Your task to perform on an android device: move a message to another label in the gmail app Image 0: 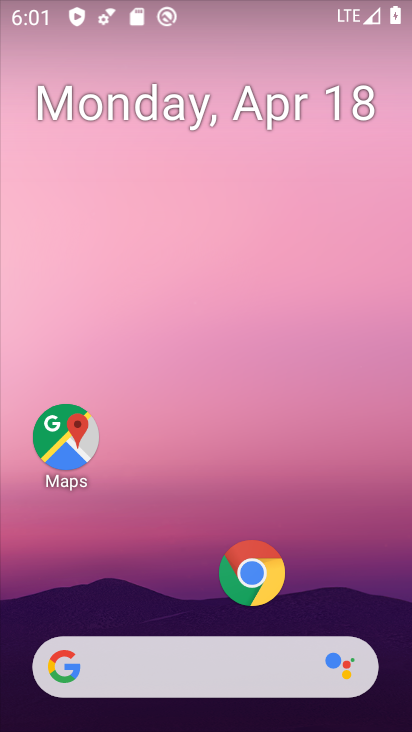
Step 0: drag from (198, 562) to (246, 28)
Your task to perform on an android device: move a message to another label in the gmail app Image 1: 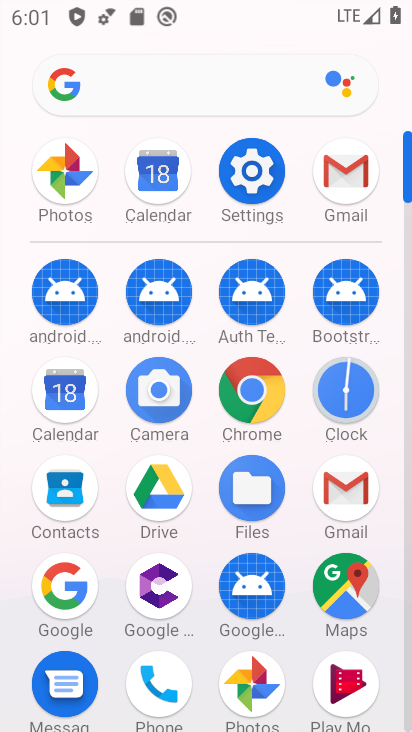
Step 1: click (358, 476)
Your task to perform on an android device: move a message to another label in the gmail app Image 2: 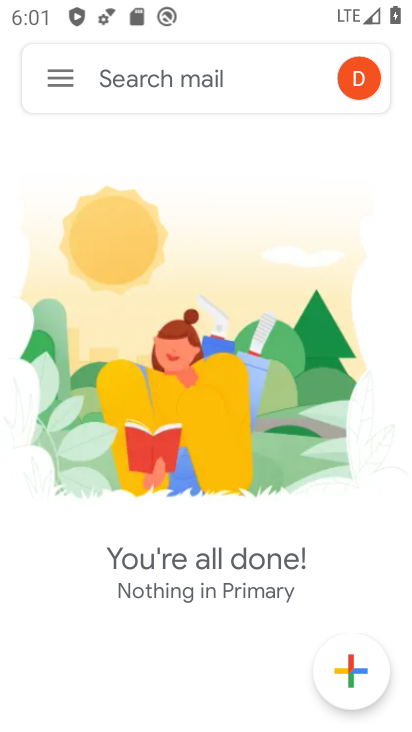
Step 2: click (41, 82)
Your task to perform on an android device: move a message to another label in the gmail app Image 3: 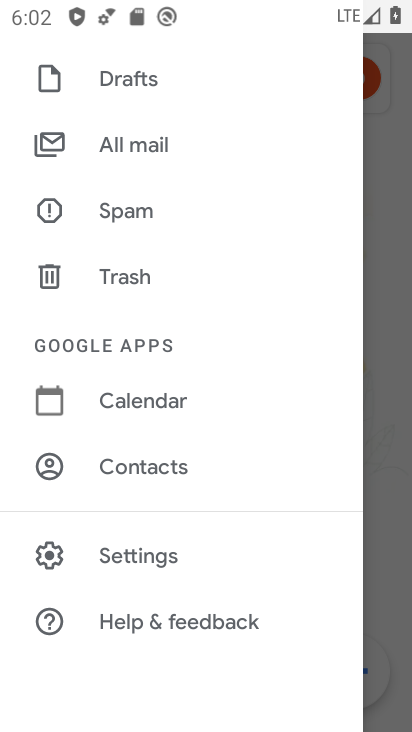
Step 3: click (146, 143)
Your task to perform on an android device: move a message to another label in the gmail app Image 4: 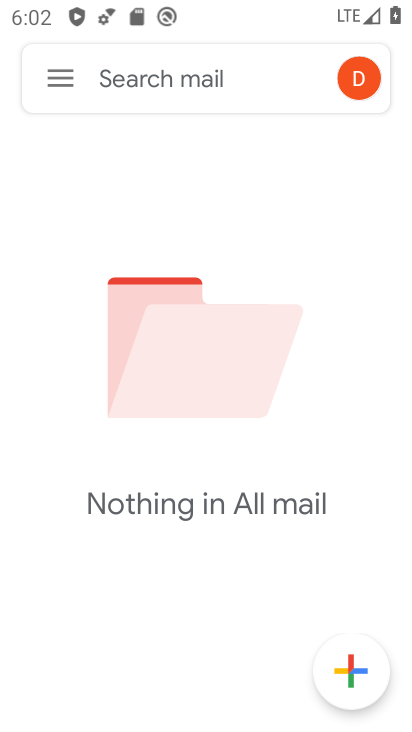
Step 4: task complete